Your task to perform on an android device: Open the calendar app, open the side menu, and click the "Day" option Image 0: 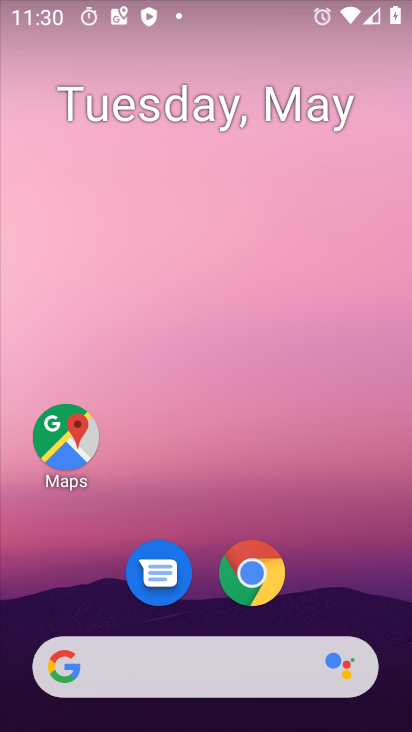
Step 0: drag from (283, 692) to (312, 157)
Your task to perform on an android device: Open the calendar app, open the side menu, and click the "Day" option Image 1: 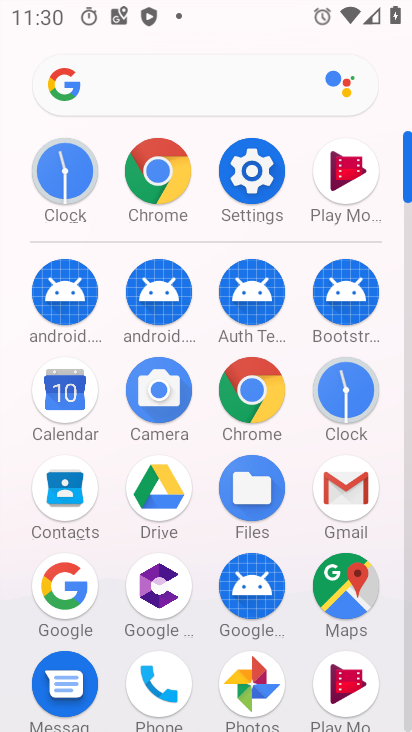
Step 1: click (82, 370)
Your task to perform on an android device: Open the calendar app, open the side menu, and click the "Day" option Image 2: 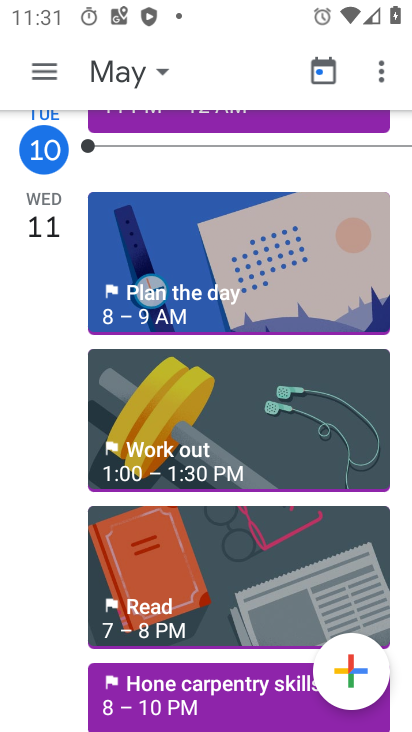
Step 2: click (26, 69)
Your task to perform on an android device: Open the calendar app, open the side menu, and click the "Day" option Image 3: 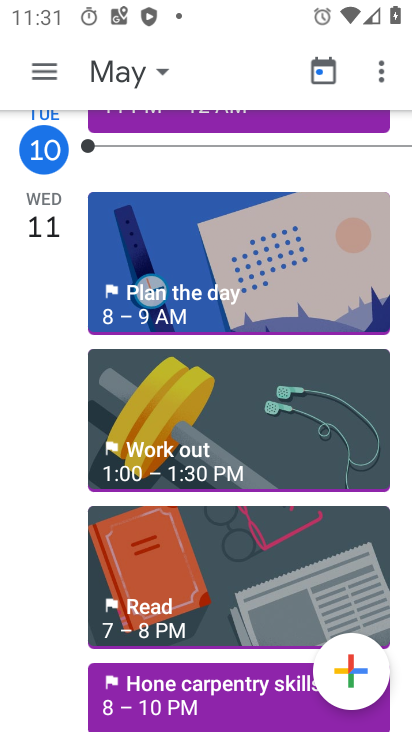
Step 3: click (40, 86)
Your task to perform on an android device: Open the calendar app, open the side menu, and click the "Day" option Image 4: 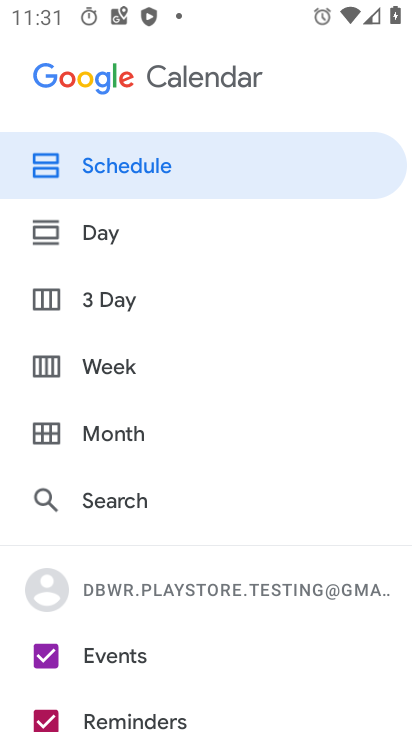
Step 4: click (130, 236)
Your task to perform on an android device: Open the calendar app, open the side menu, and click the "Day" option Image 5: 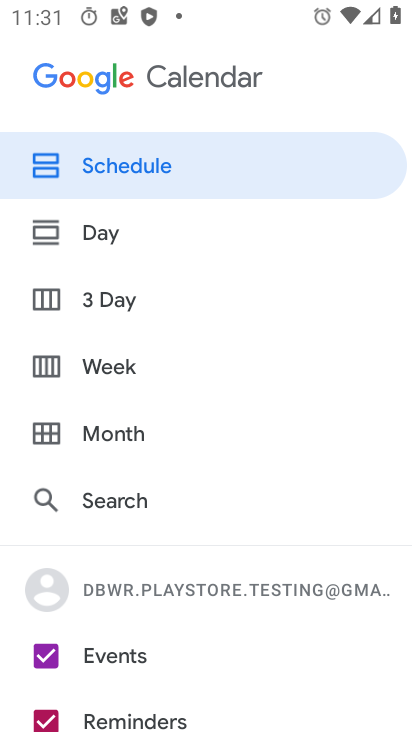
Step 5: click (135, 244)
Your task to perform on an android device: Open the calendar app, open the side menu, and click the "Day" option Image 6: 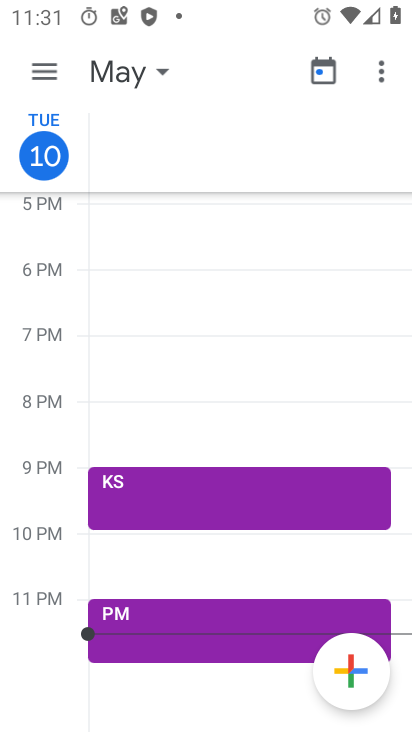
Step 6: task complete